Your task to perform on an android device: turn on the 12-hour format for clock Image 0: 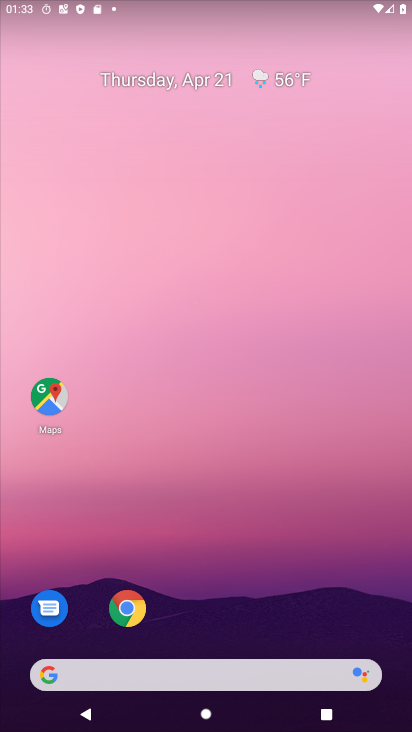
Step 0: drag from (270, 585) to (210, 62)
Your task to perform on an android device: turn on the 12-hour format for clock Image 1: 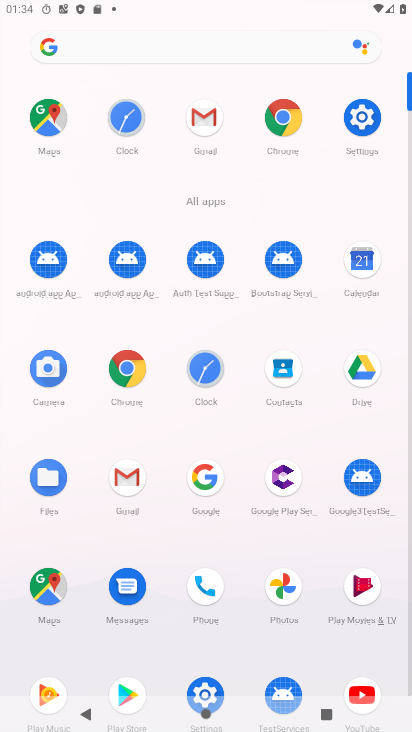
Step 1: click (202, 366)
Your task to perform on an android device: turn on the 12-hour format for clock Image 2: 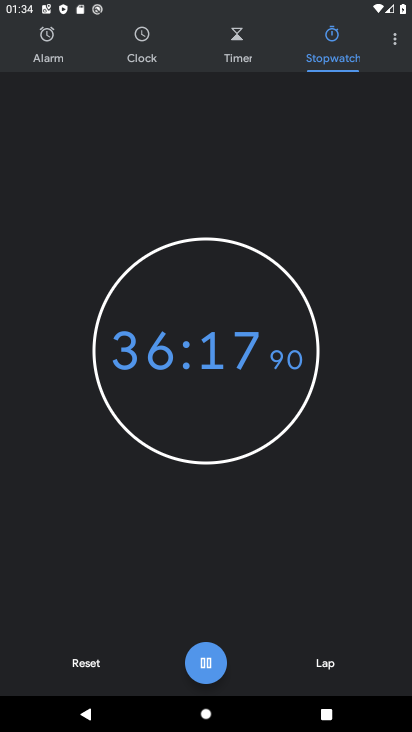
Step 2: click (388, 39)
Your task to perform on an android device: turn on the 12-hour format for clock Image 3: 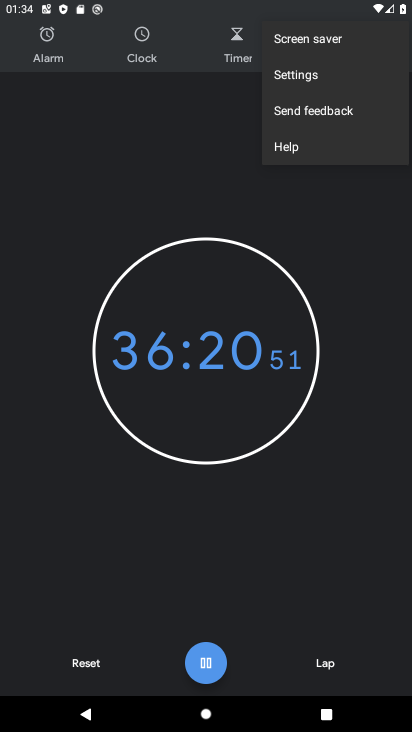
Step 3: click (320, 78)
Your task to perform on an android device: turn on the 12-hour format for clock Image 4: 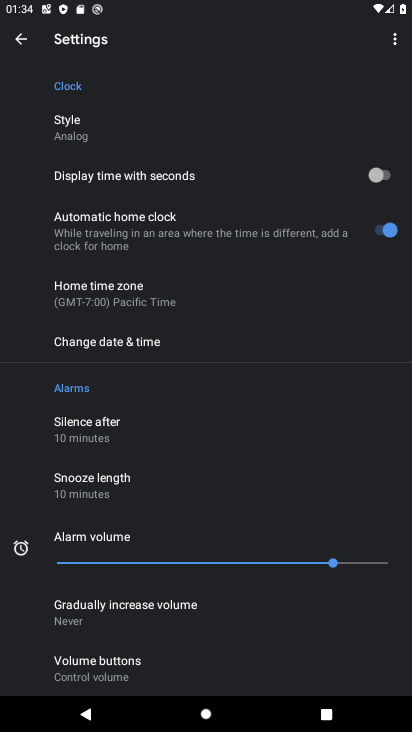
Step 4: click (156, 329)
Your task to perform on an android device: turn on the 12-hour format for clock Image 5: 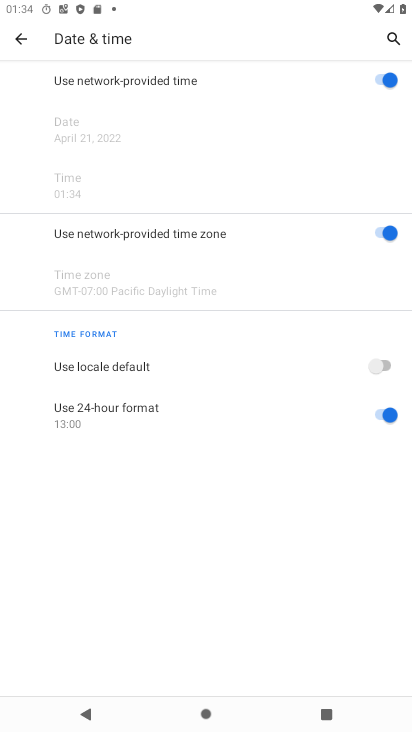
Step 5: click (386, 363)
Your task to perform on an android device: turn on the 12-hour format for clock Image 6: 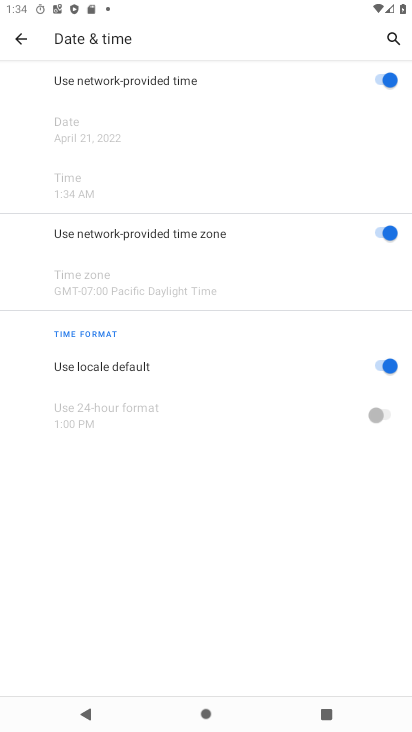
Step 6: task complete